Your task to perform on an android device: set an alarm Image 0: 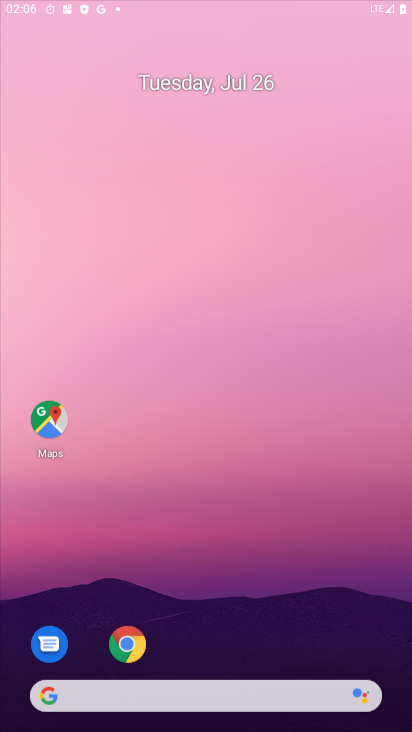
Step 0: drag from (257, 608) to (239, 110)
Your task to perform on an android device: set an alarm Image 1: 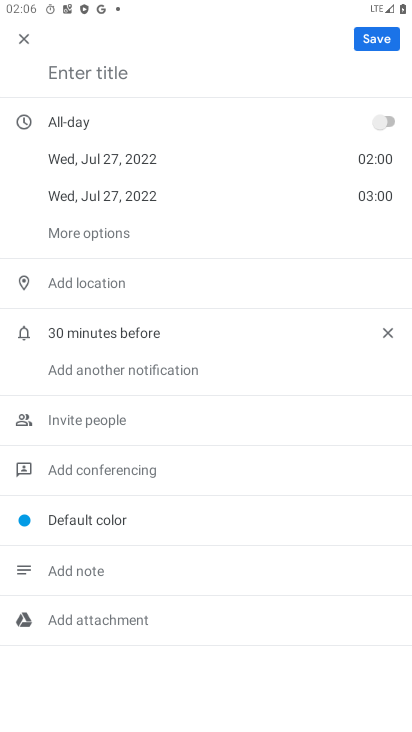
Step 1: press home button
Your task to perform on an android device: set an alarm Image 2: 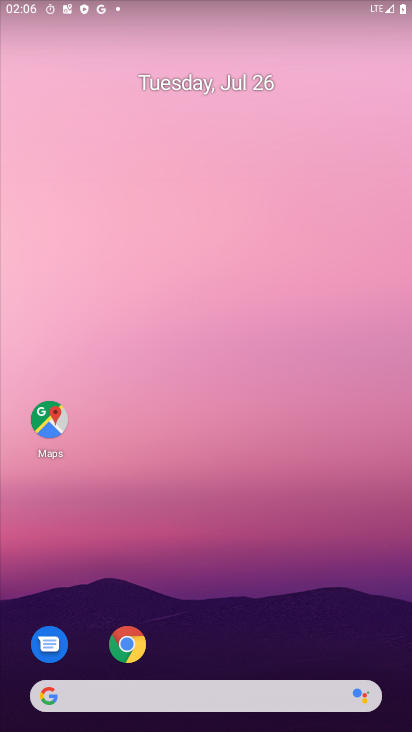
Step 2: drag from (243, 668) to (216, 75)
Your task to perform on an android device: set an alarm Image 3: 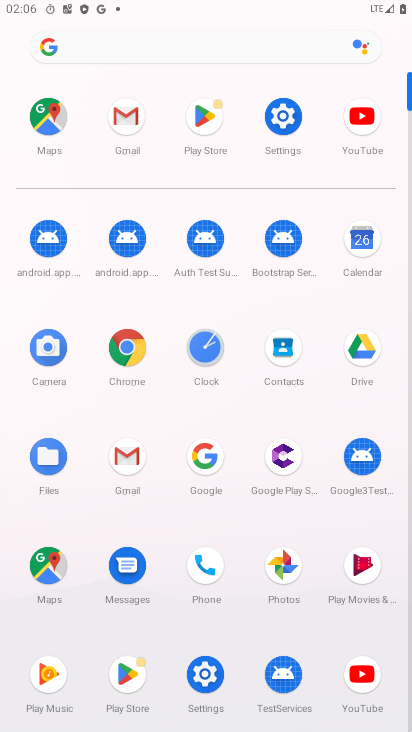
Step 3: click (209, 346)
Your task to perform on an android device: set an alarm Image 4: 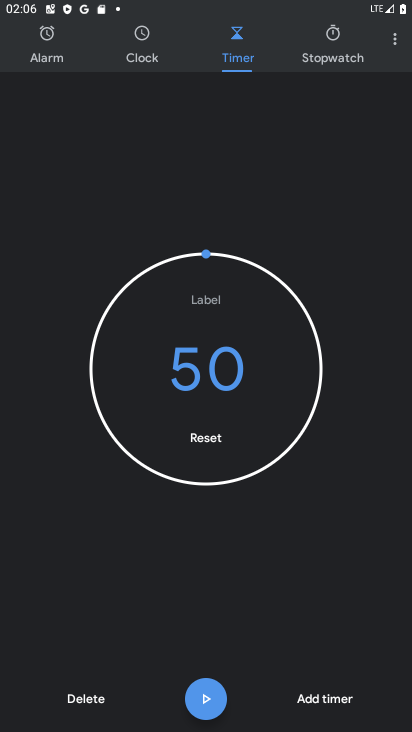
Step 4: click (43, 51)
Your task to perform on an android device: set an alarm Image 5: 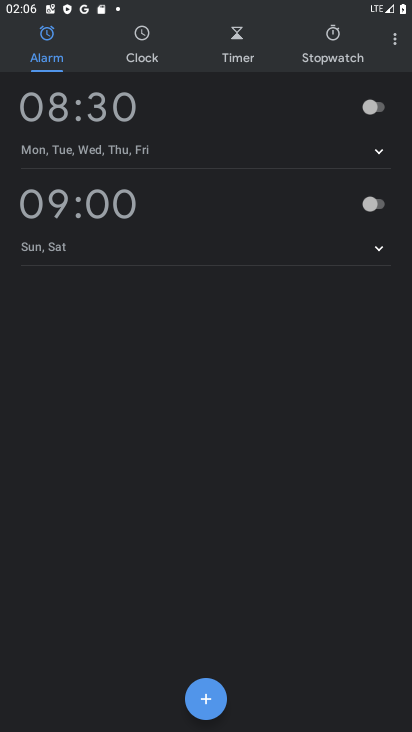
Step 5: click (205, 701)
Your task to perform on an android device: set an alarm Image 6: 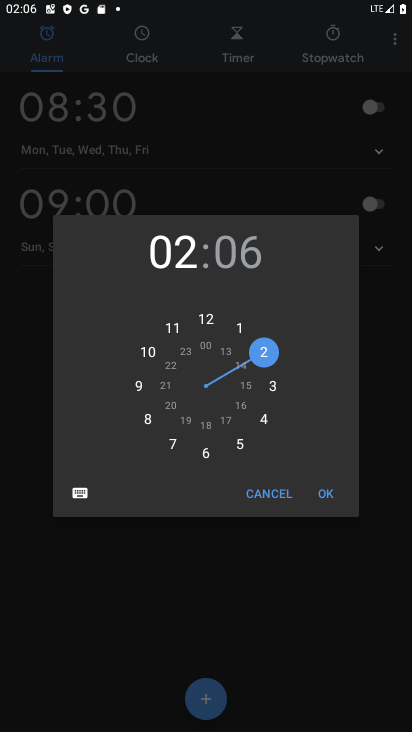
Step 6: click (245, 449)
Your task to perform on an android device: set an alarm Image 7: 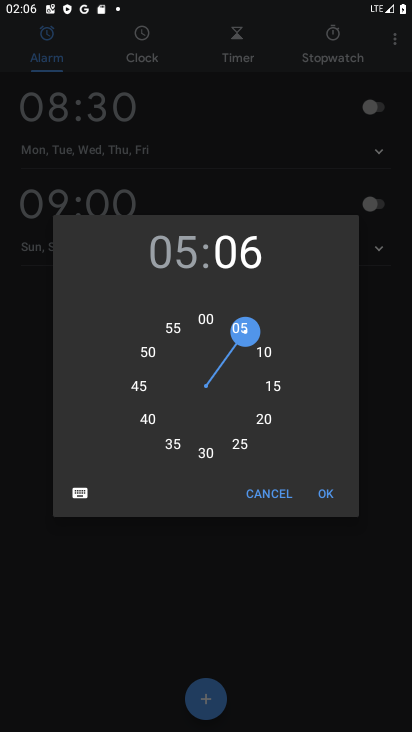
Step 7: click (205, 314)
Your task to perform on an android device: set an alarm Image 8: 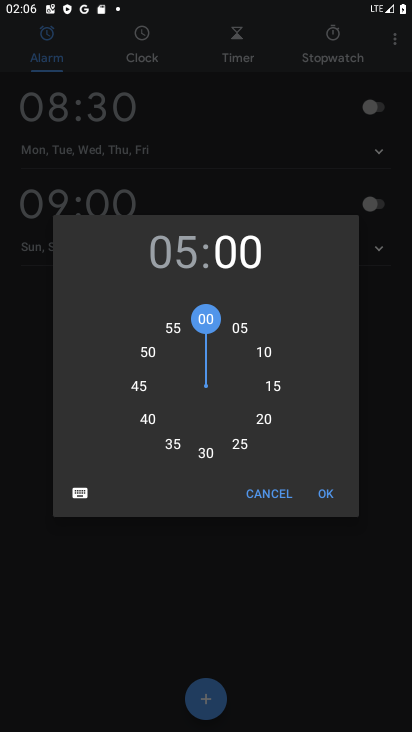
Step 8: click (337, 491)
Your task to perform on an android device: set an alarm Image 9: 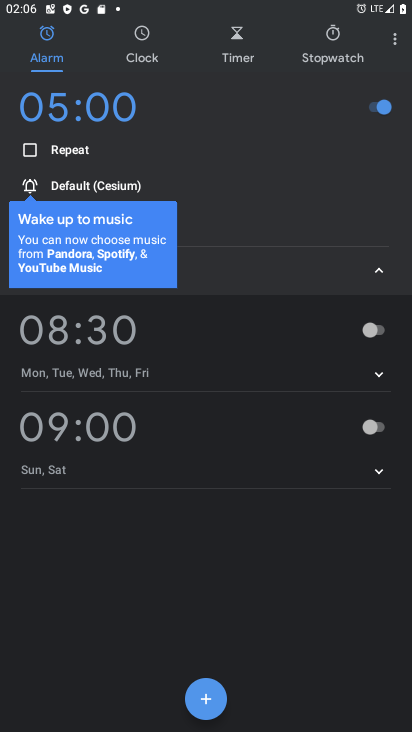
Step 9: task complete